Your task to perform on an android device: Play the last video I watched on Youtube Image 0: 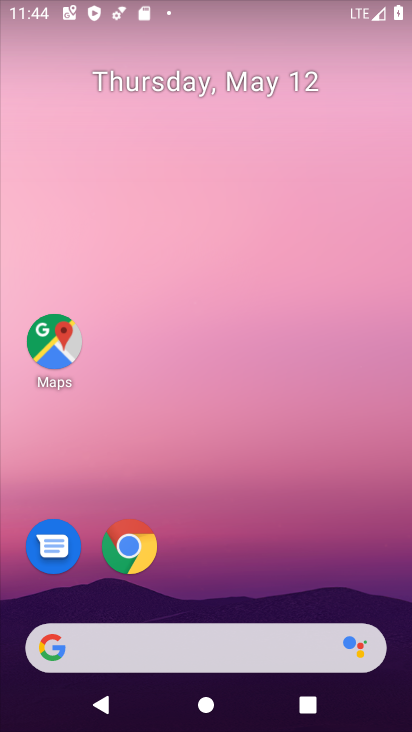
Step 0: drag from (234, 515) to (273, 107)
Your task to perform on an android device: Play the last video I watched on Youtube Image 1: 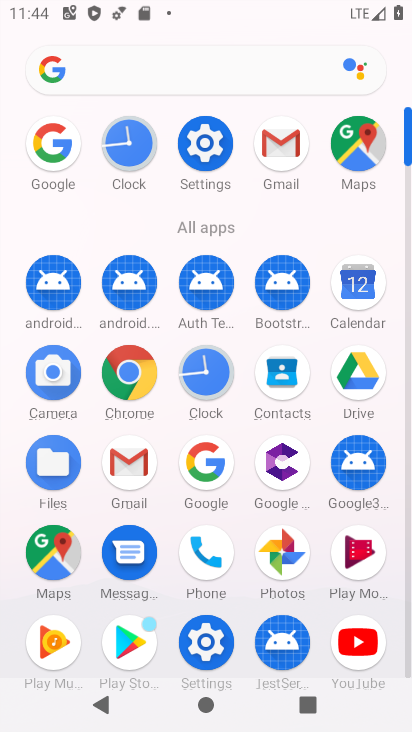
Step 1: click (366, 651)
Your task to perform on an android device: Play the last video I watched on Youtube Image 2: 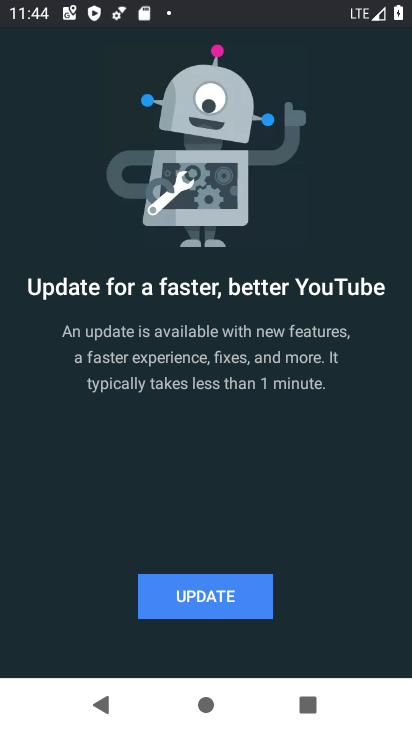
Step 2: click (211, 593)
Your task to perform on an android device: Play the last video I watched on Youtube Image 3: 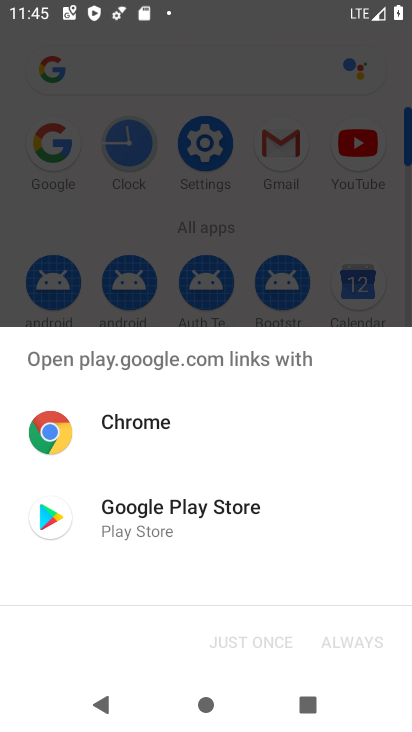
Step 3: click (159, 501)
Your task to perform on an android device: Play the last video I watched on Youtube Image 4: 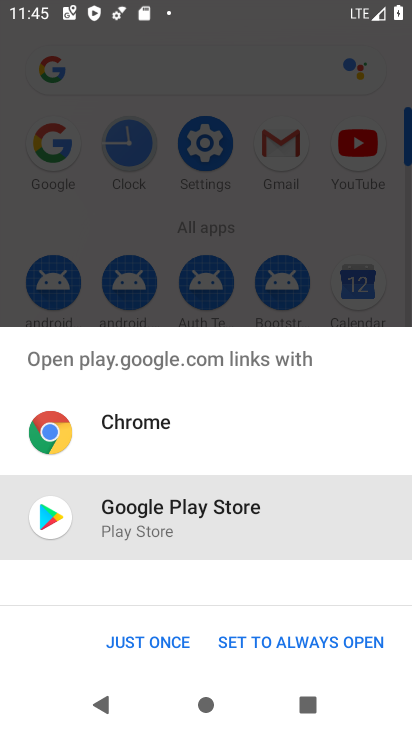
Step 4: click (157, 644)
Your task to perform on an android device: Play the last video I watched on Youtube Image 5: 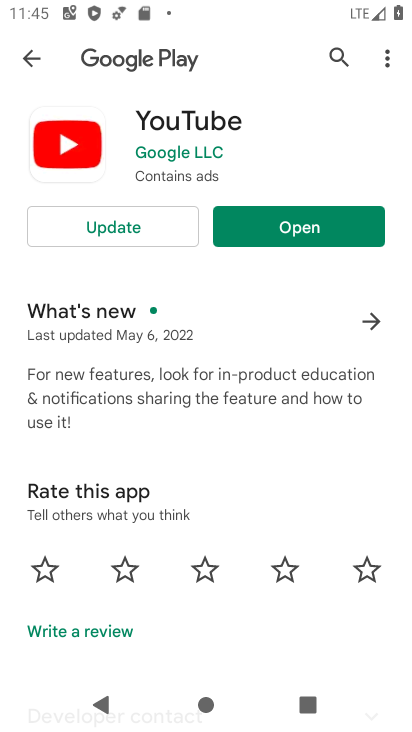
Step 5: click (310, 229)
Your task to perform on an android device: Play the last video I watched on Youtube Image 6: 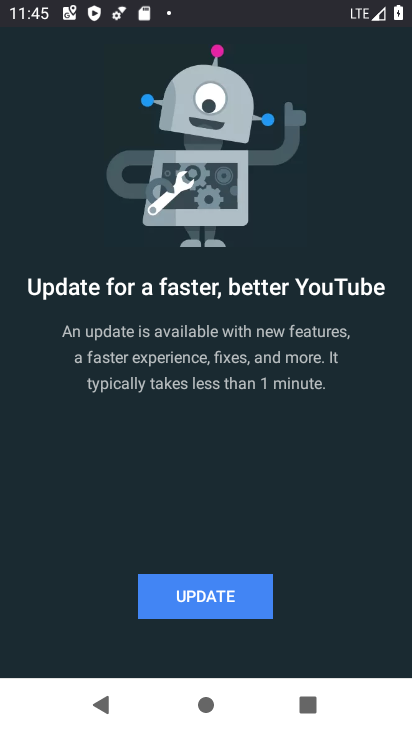
Step 6: click (212, 595)
Your task to perform on an android device: Play the last video I watched on Youtube Image 7: 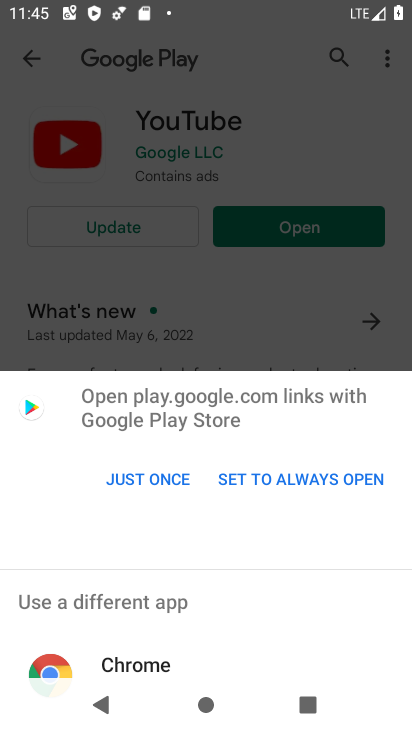
Step 7: click (155, 491)
Your task to perform on an android device: Play the last video I watched on Youtube Image 8: 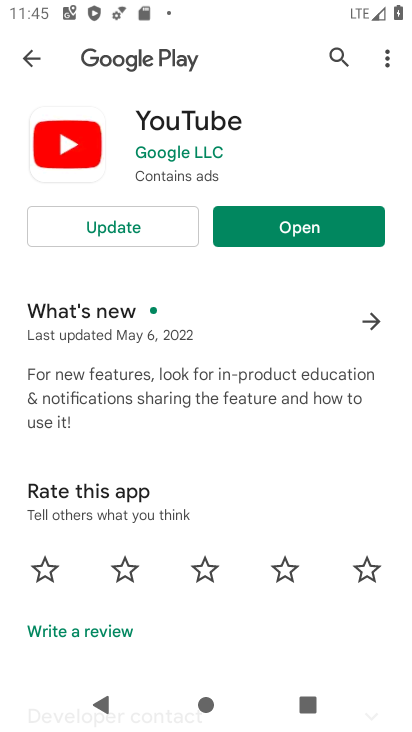
Step 8: click (149, 222)
Your task to perform on an android device: Play the last video I watched on Youtube Image 9: 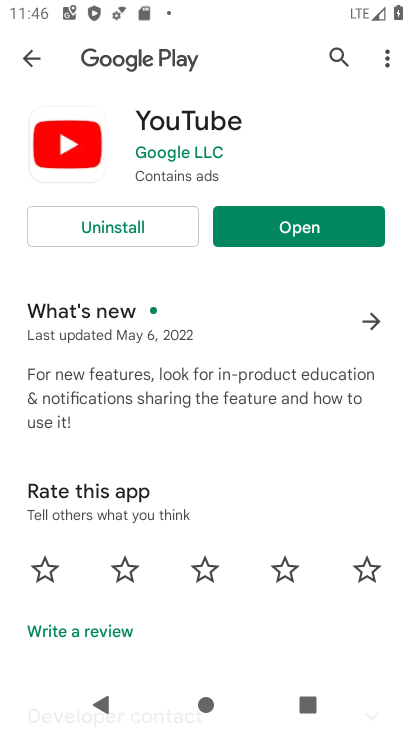
Step 9: click (312, 231)
Your task to perform on an android device: Play the last video I watched on Youtube Image 10: 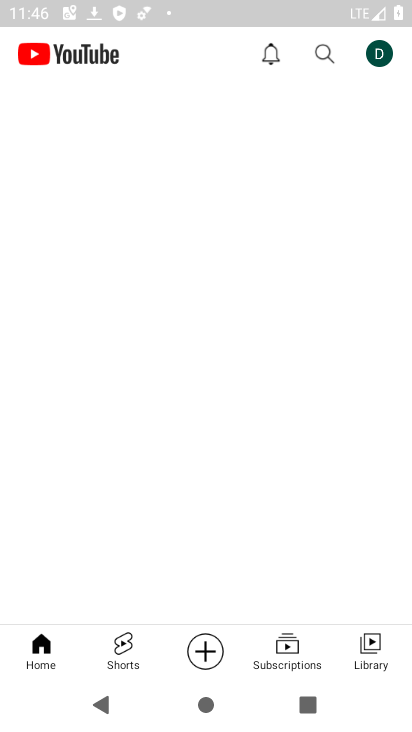
Step 10: click (362, 652)
Your task to perform on an android device: Play the last video I watched on Youtube Image 11: 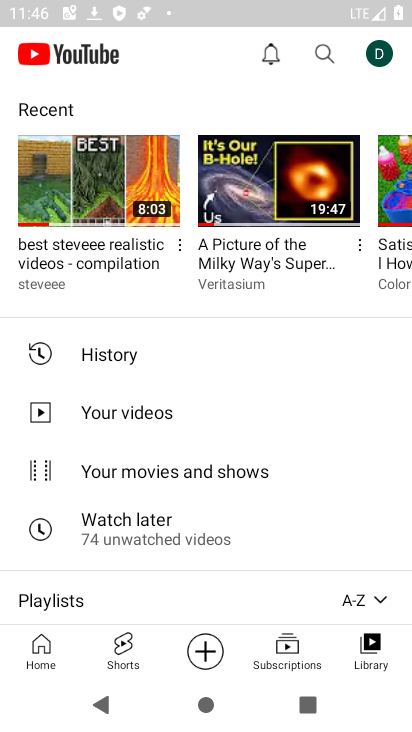
Step 11: click (99, 160)
Your task to perform on an android device: Play the last video I watched on Youtube Image 12: 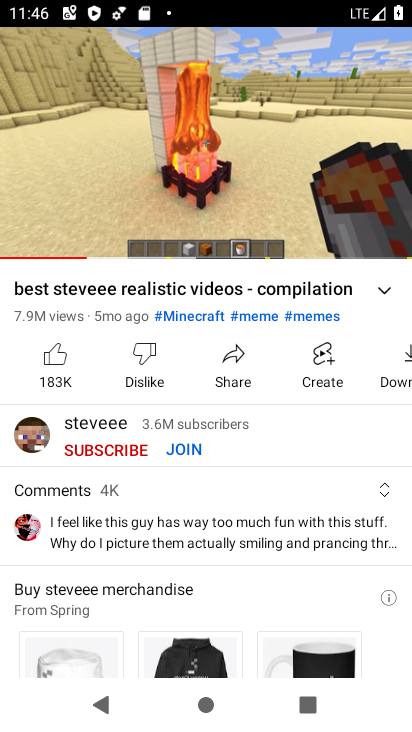
Step 12: task complete